Your task to perform on an android device: install app "ColorNote Notepad Notes" Image 0: 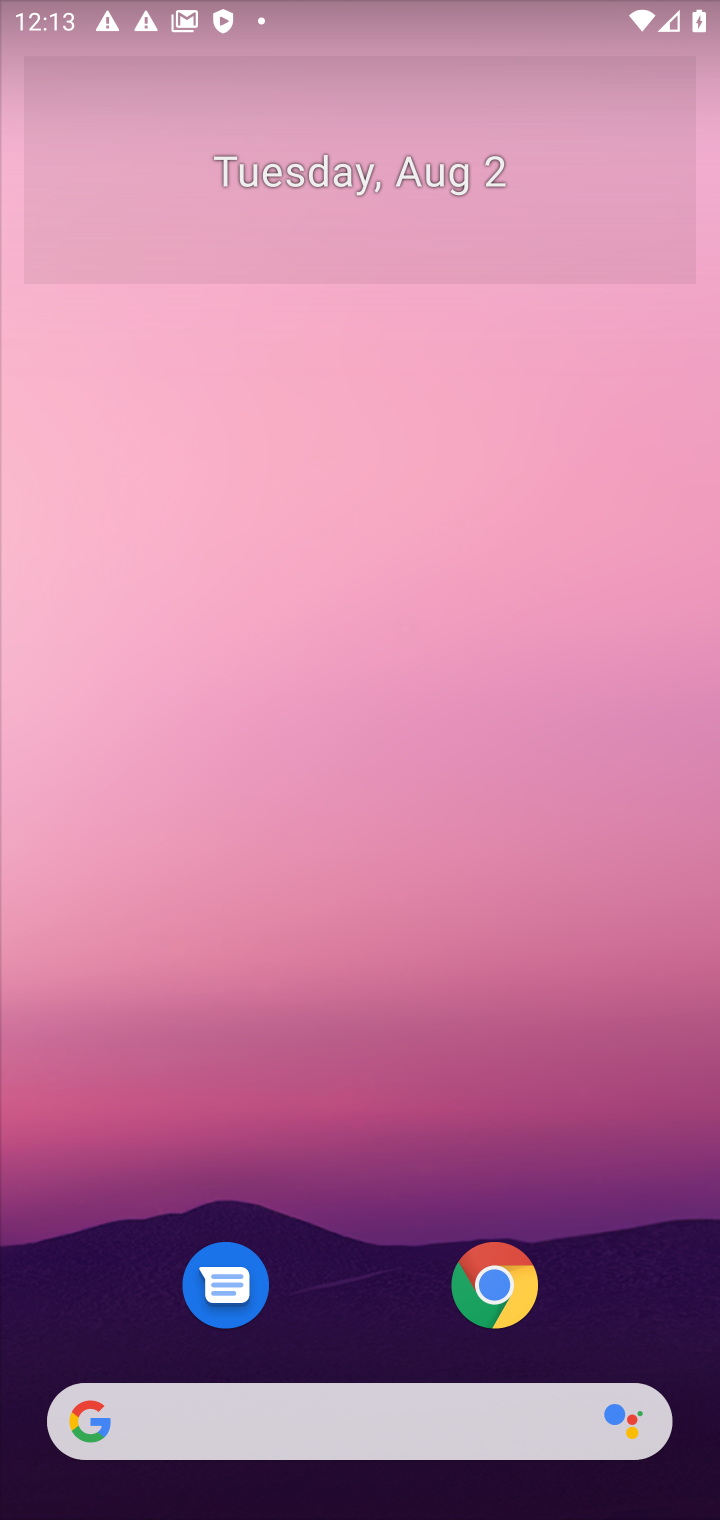
Step 0: drag from (619, 1136) to (600, 220)
Your task to perform on an android device: install app "ColorNote Notepad Notes" Image 1: 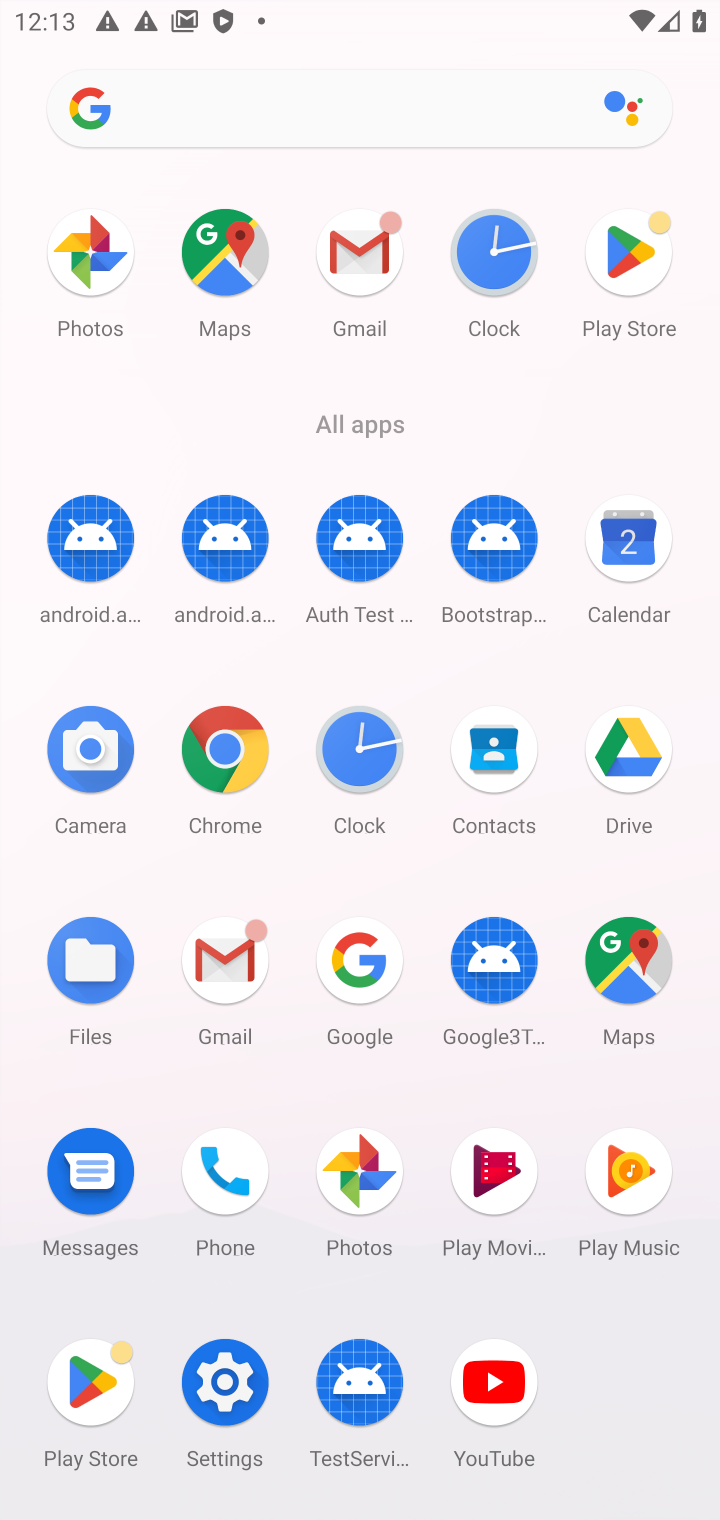
Step 1: click (101, 1389)
Your task to perform on an android device: install app "ColorNote Notepad Notes" Image 2: 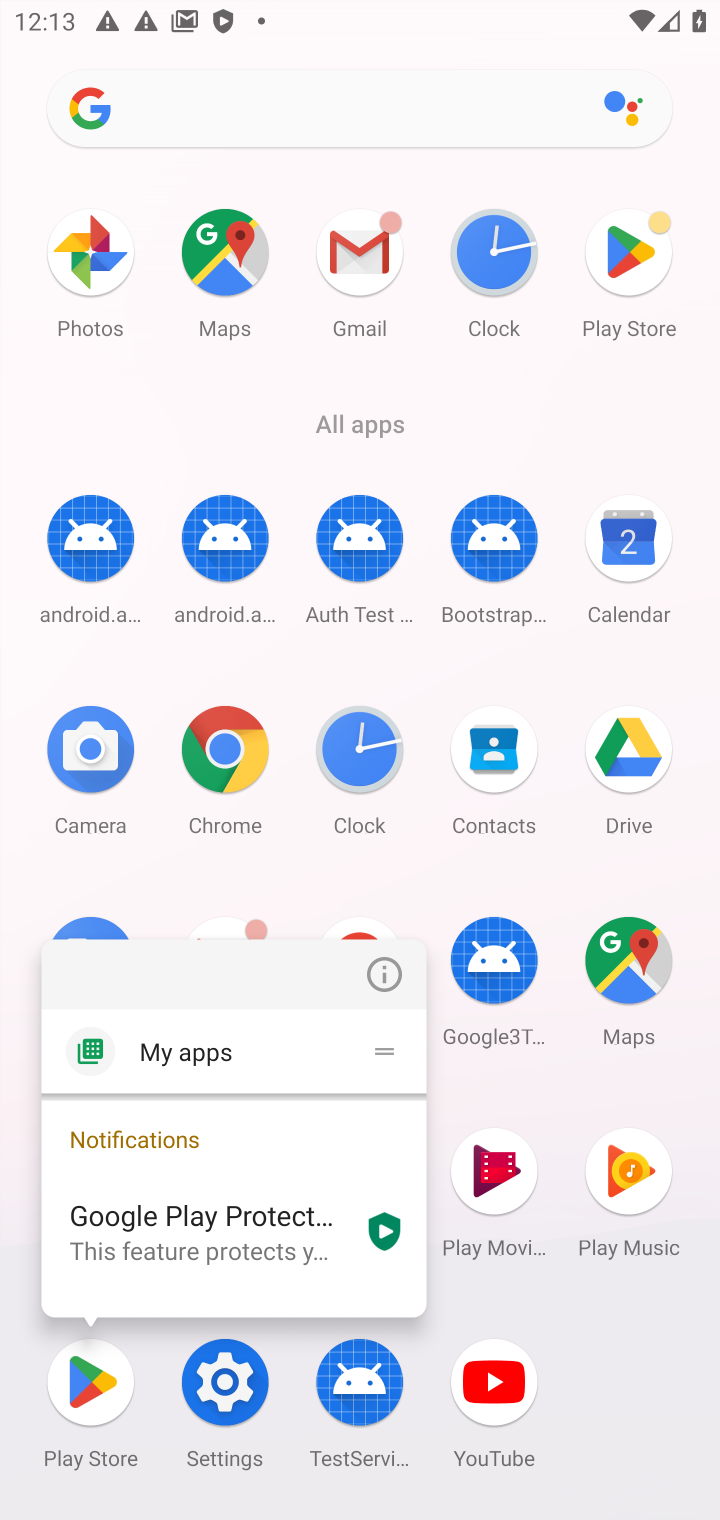
Step 2: click (101, 1389)
Your task to perform on an android device: install app "ColorNote Notepad Notes" Image 3: 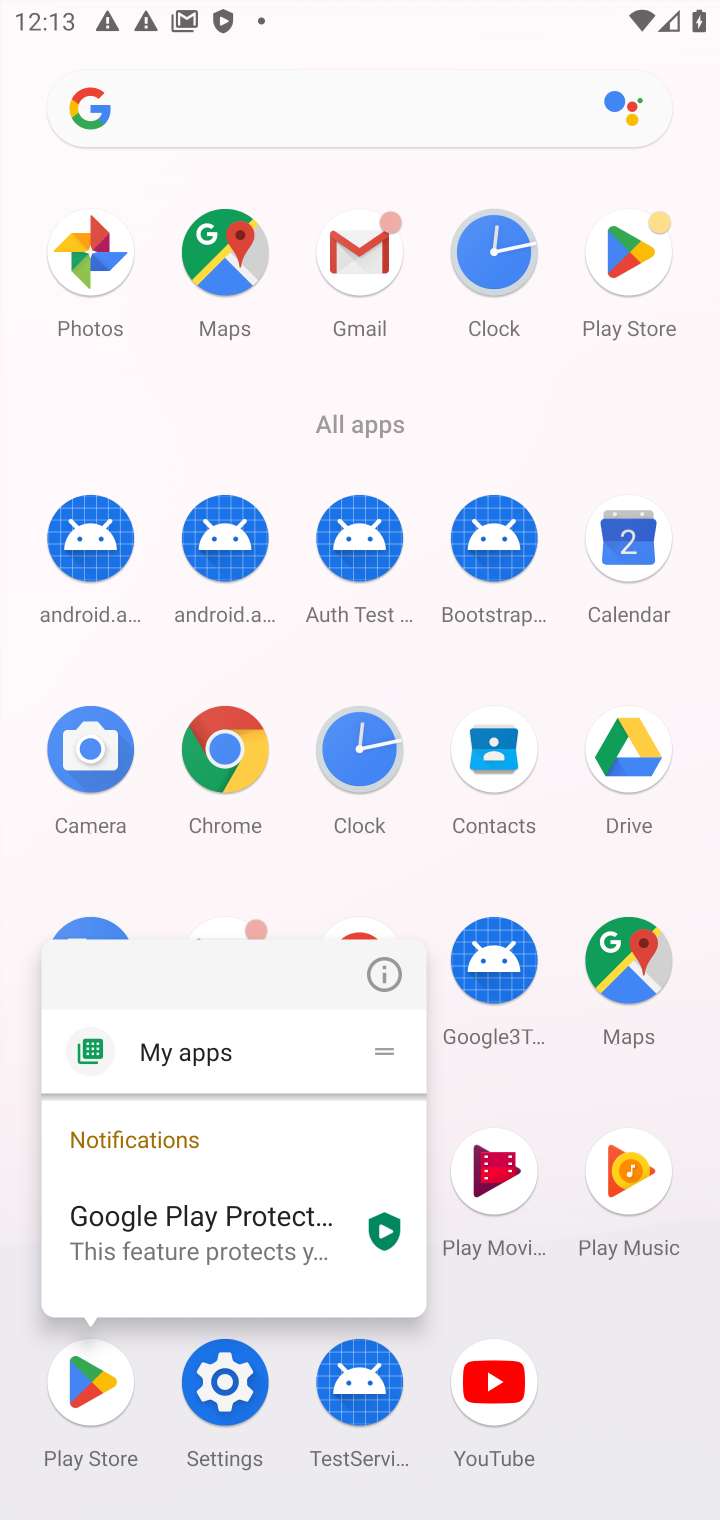
Step 3: click (88, 1396)
Your task to perform on an android device: install app "ColorNote Notepad Notes" Image 4: 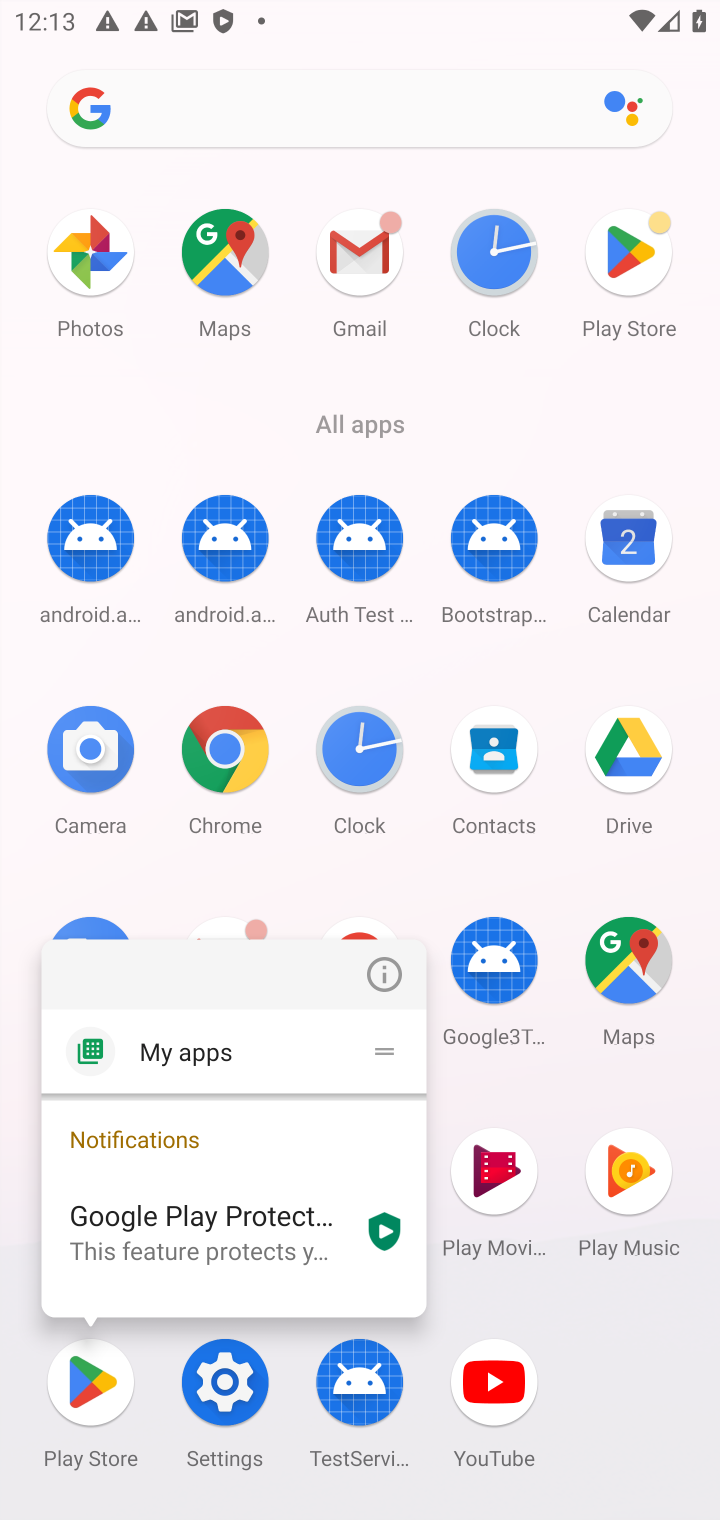
Step 4: click (661, 1336)
Your task to perform on an android device: install app "ColorNote Notepad Notes" Image 5: 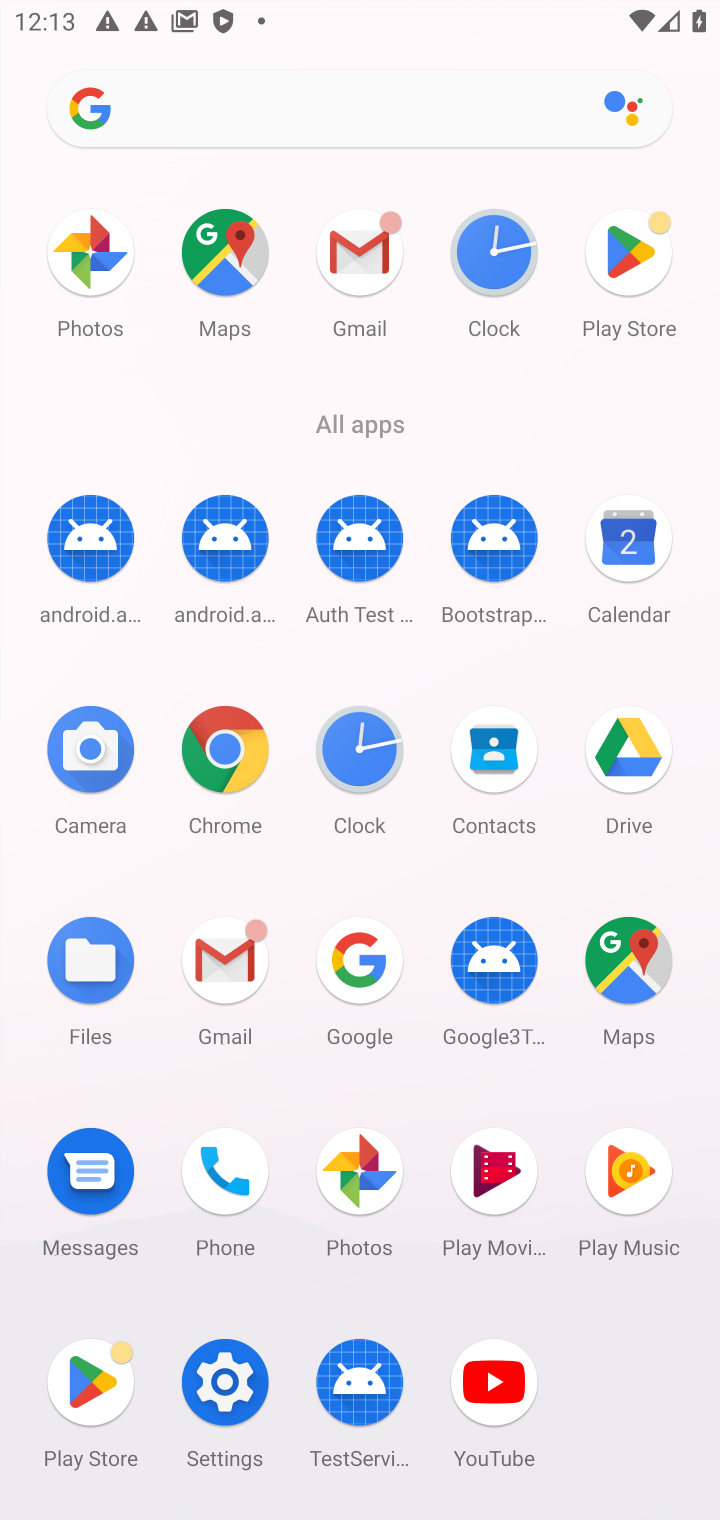
Step 5: click (646, 1359)
Your task to perform on an android device: install app "ColorNote Notepad Notes" Image 6: 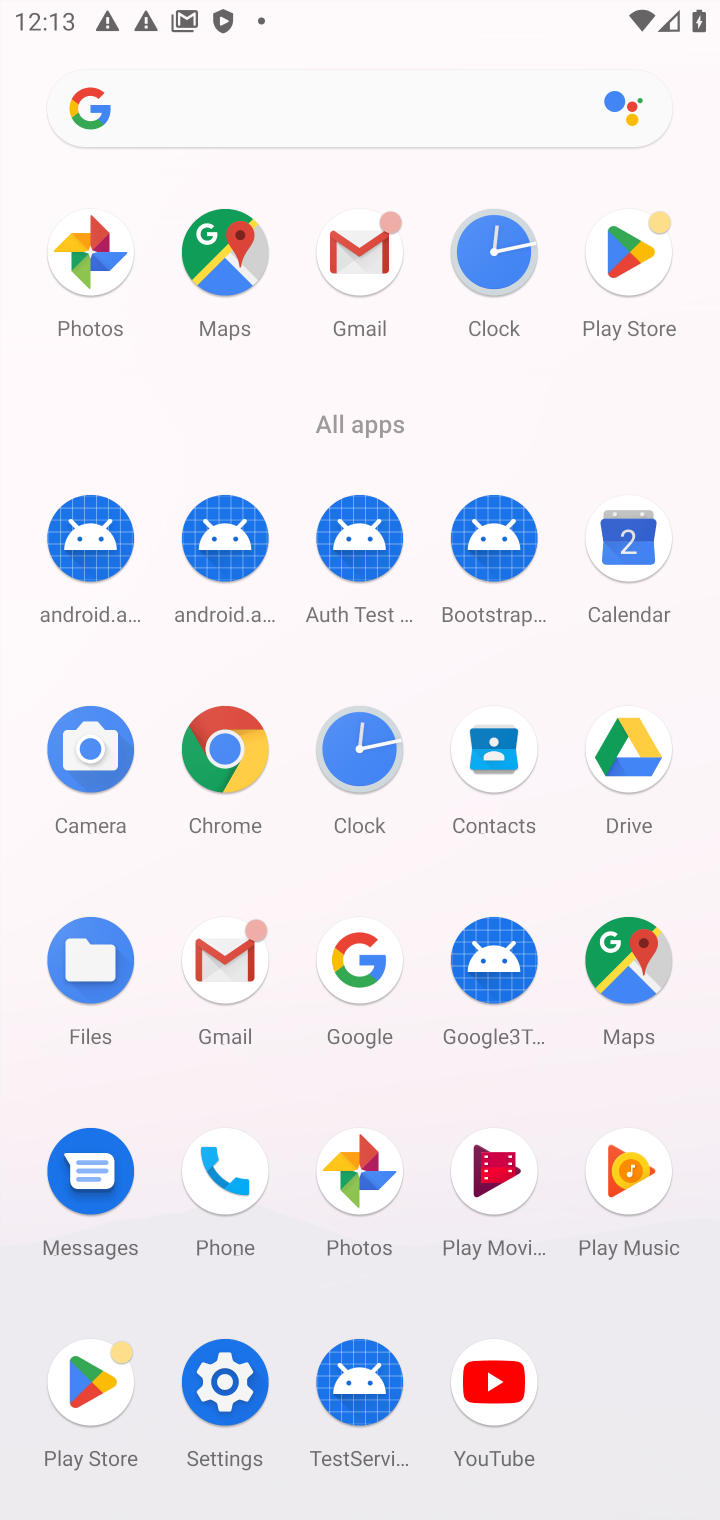
Step 6: click (93, 1388)
Your task to perform on an android device: install app "ColorNote Notepad Notes" Image 7: 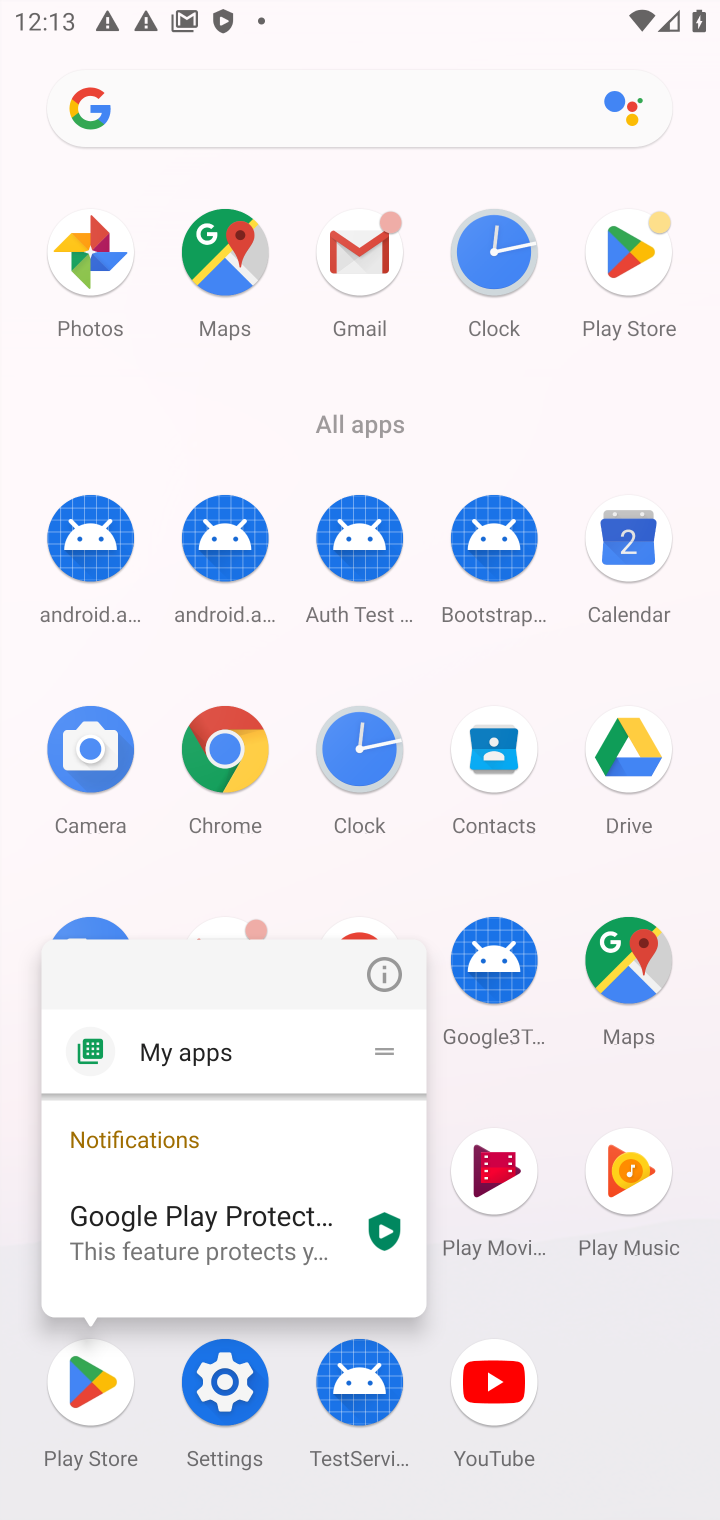
Step 7: click (93, 1386)
Your task to perform on an android device: install app "ColorNote Notepad Notes" Image 8: 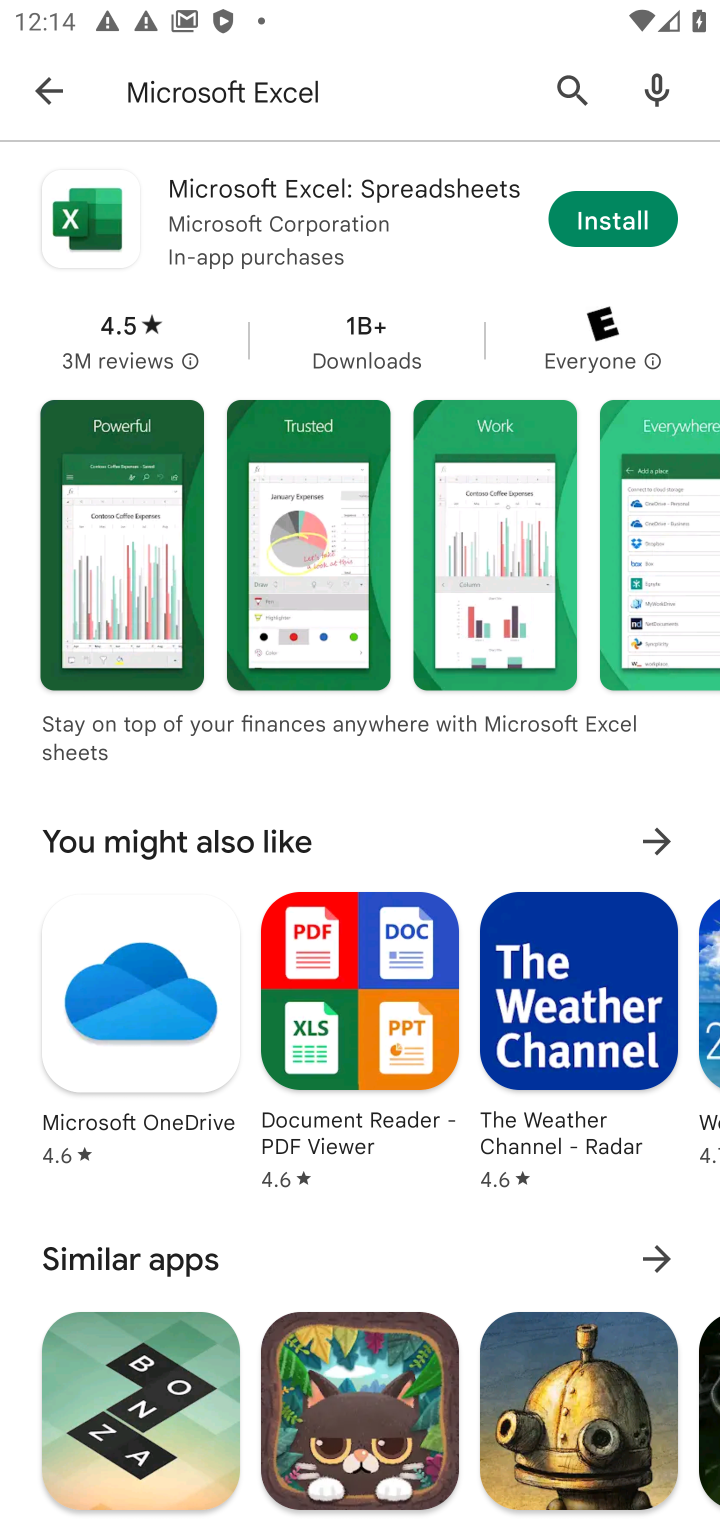
Step 8: click (403, 81)
Your task to perform on an android device: install app "ColorNote Notepad Notes" Image 9: 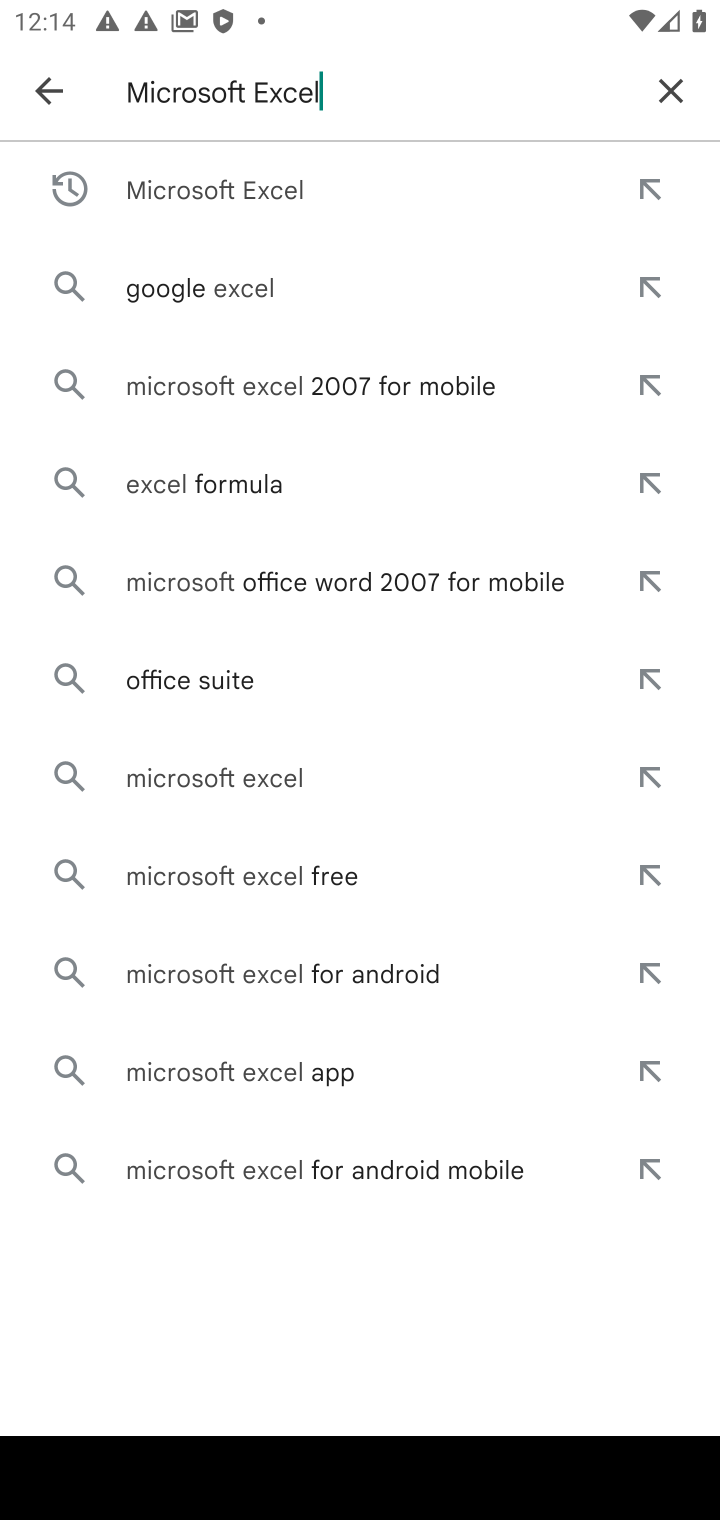
Step 9: click (663, 84)
Your task to perform on an android device: install app "ColorNote Notepad Notes" Image 10: 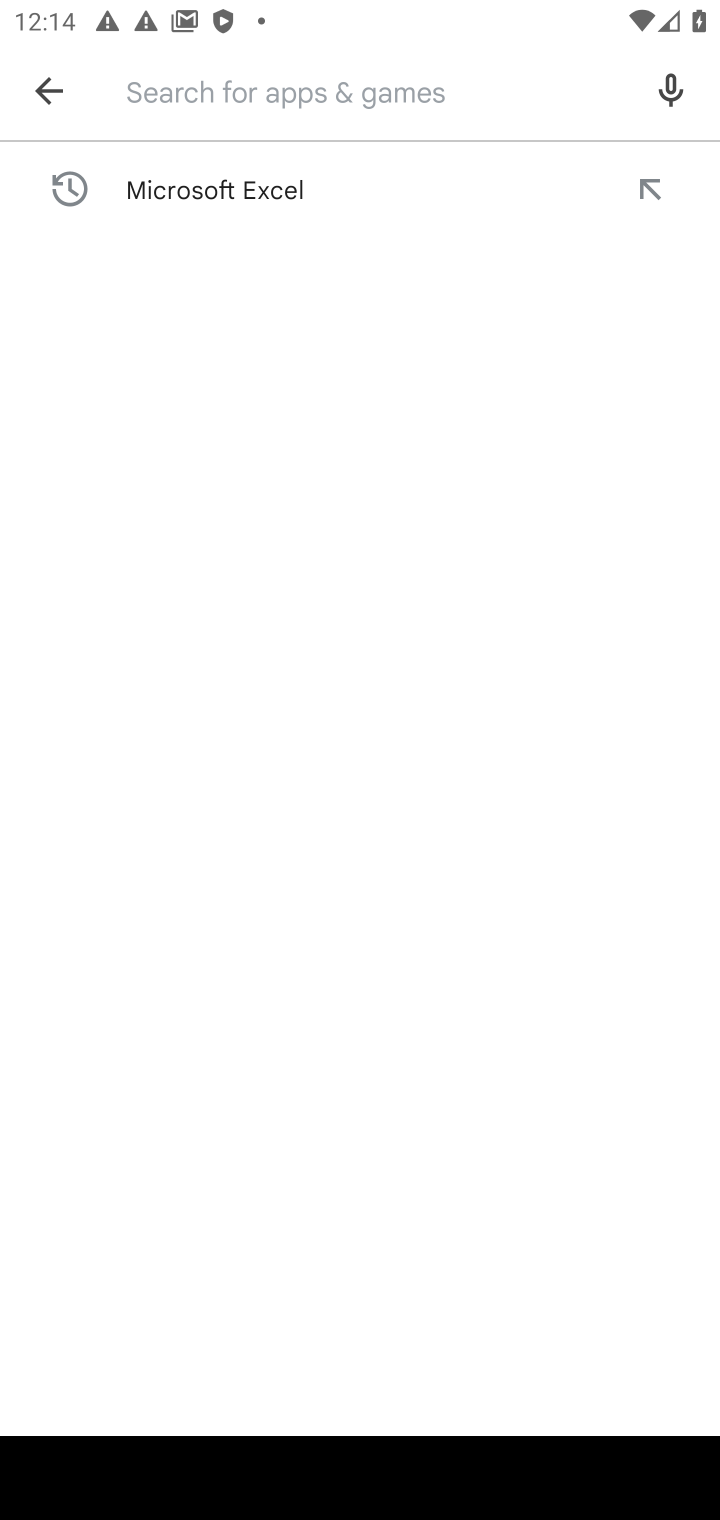
Step 10: type "ColorNote Notepad Notes"
Your task to perform on an android device: install app "ColorNote Notepad Notes" Image 11: 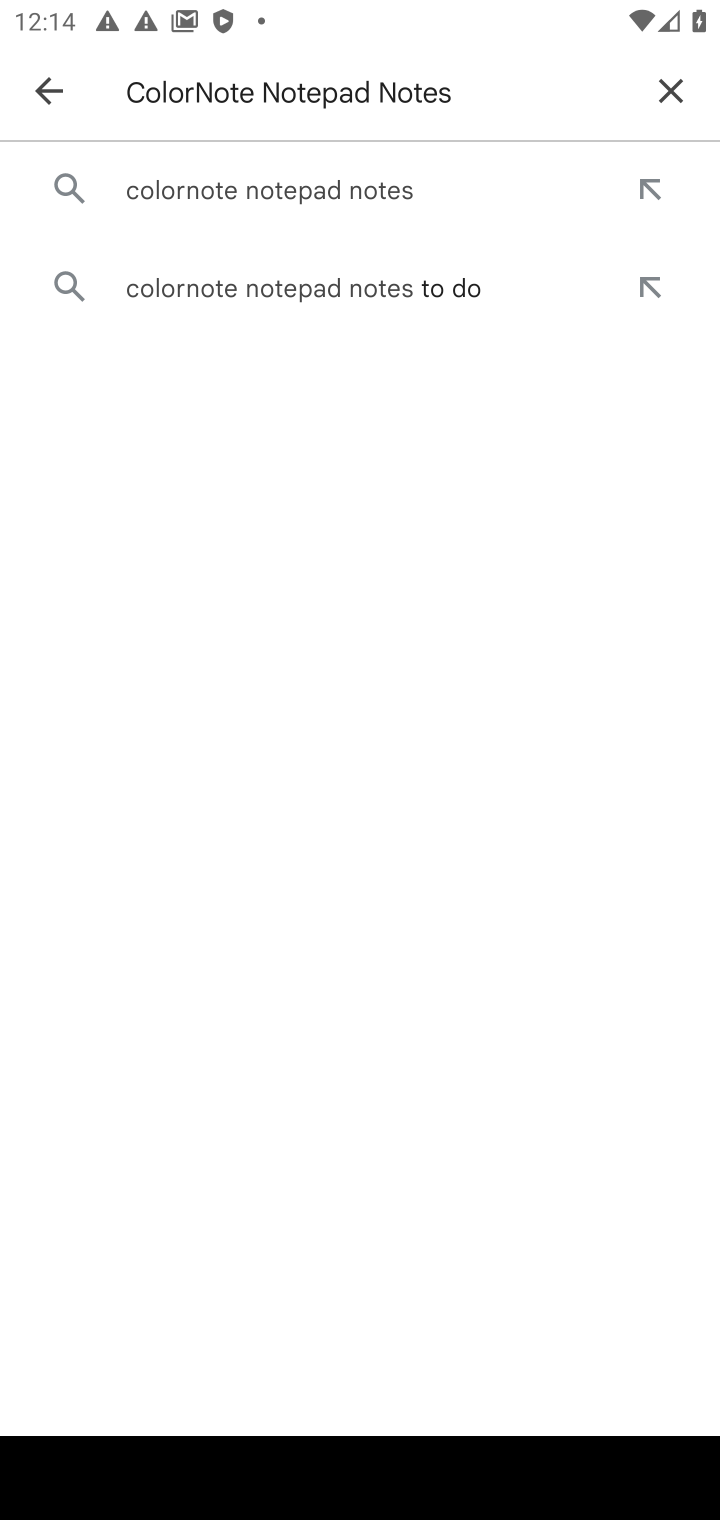
Step 11: press enter
Your task to perform on an android device: install app "ColorNote Notepad Notes" Image 12: 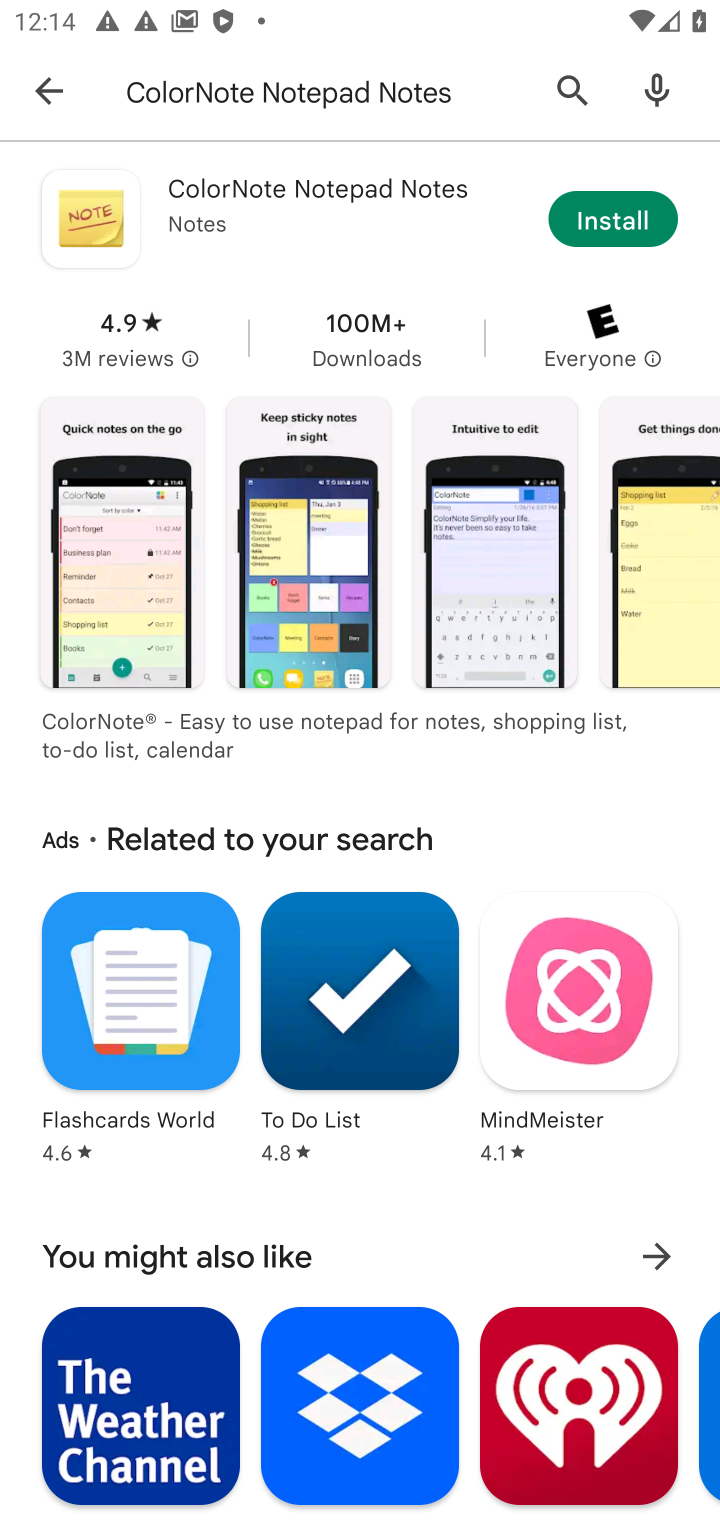
Step 12: click (588, 207)
Your task to perform on an android device: install app "ColorNote Notepad Notes" Image 13: 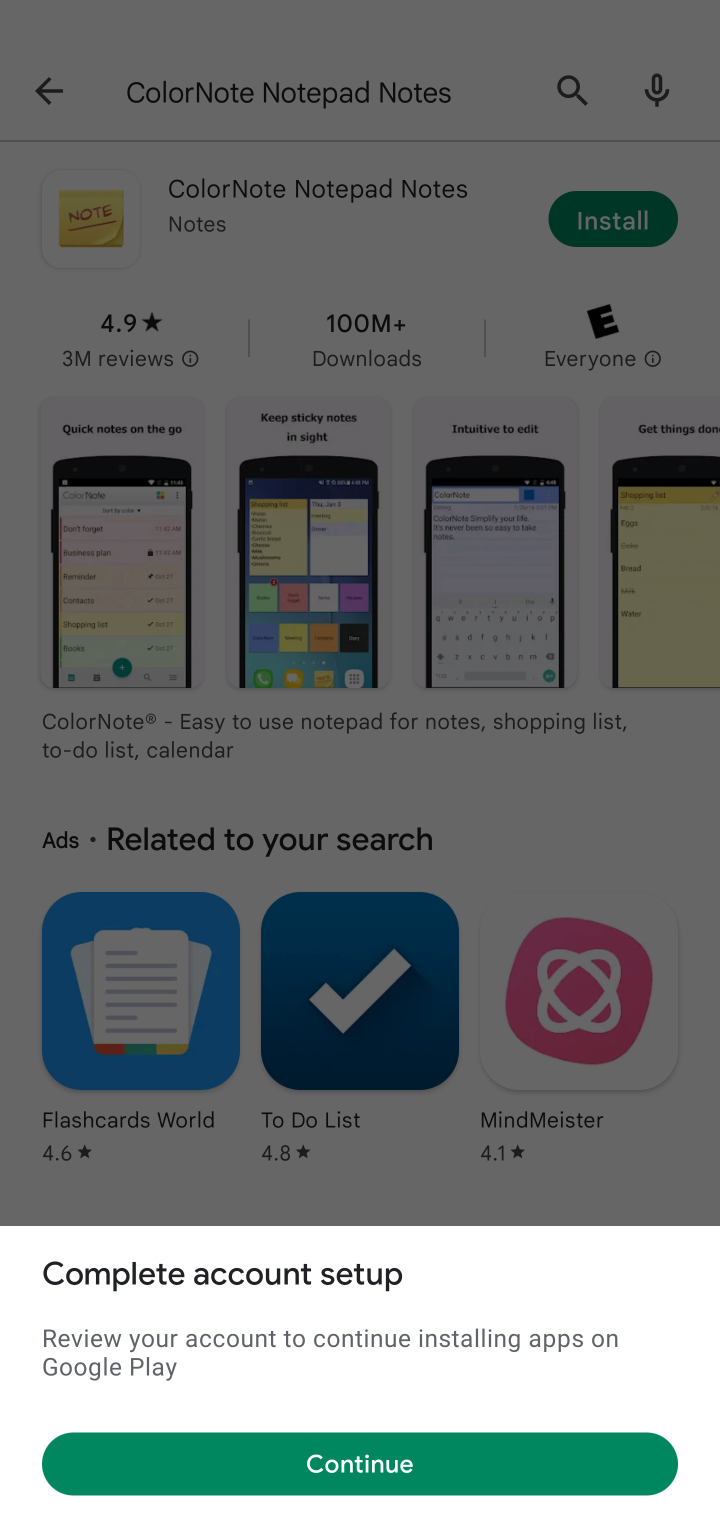
Step 13: click (447, 1456)
Your task to perform on an android device: install app "ColorNote Notepad Notes" Image 14: 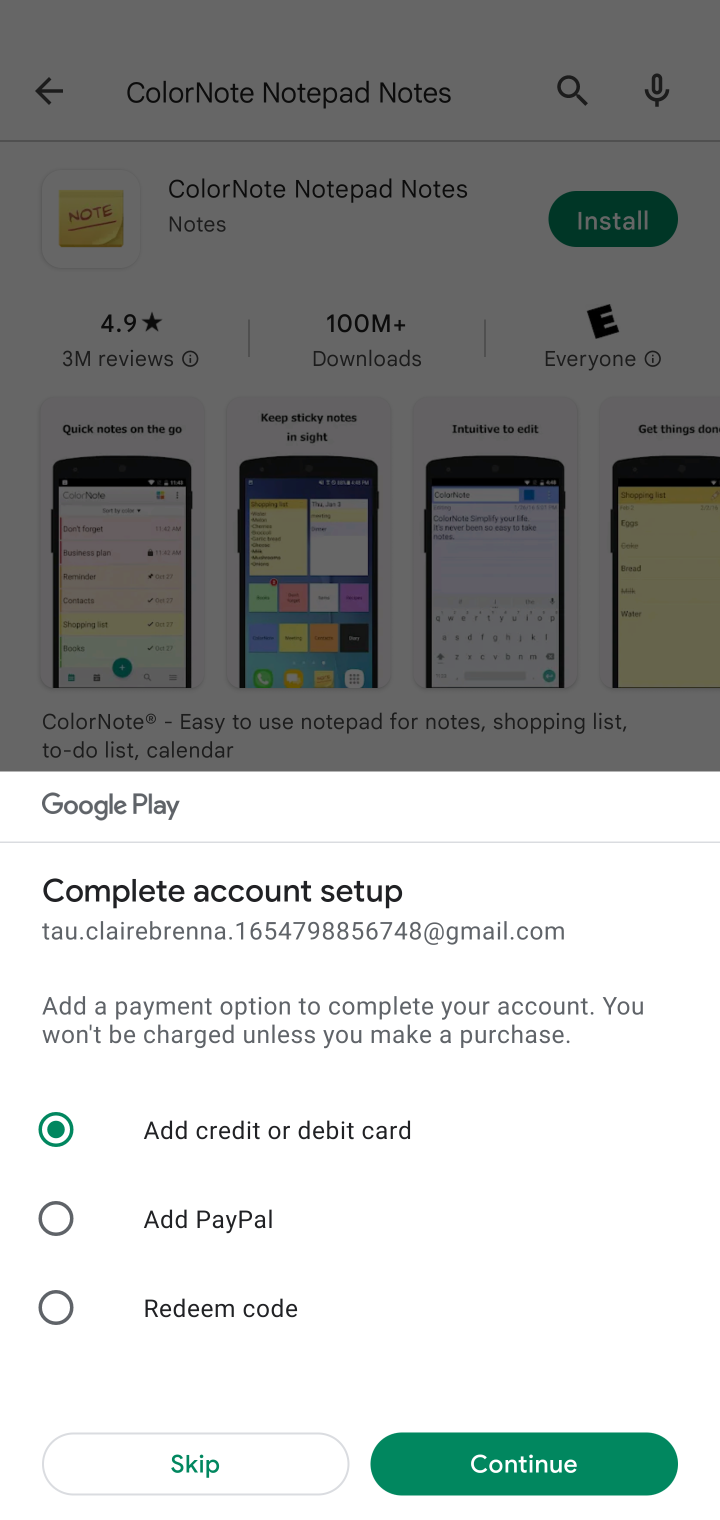
Step 14: click (223, 1465)
Your task to perform on an android device: install app "ColorNote Notepad Notes" Image 15: 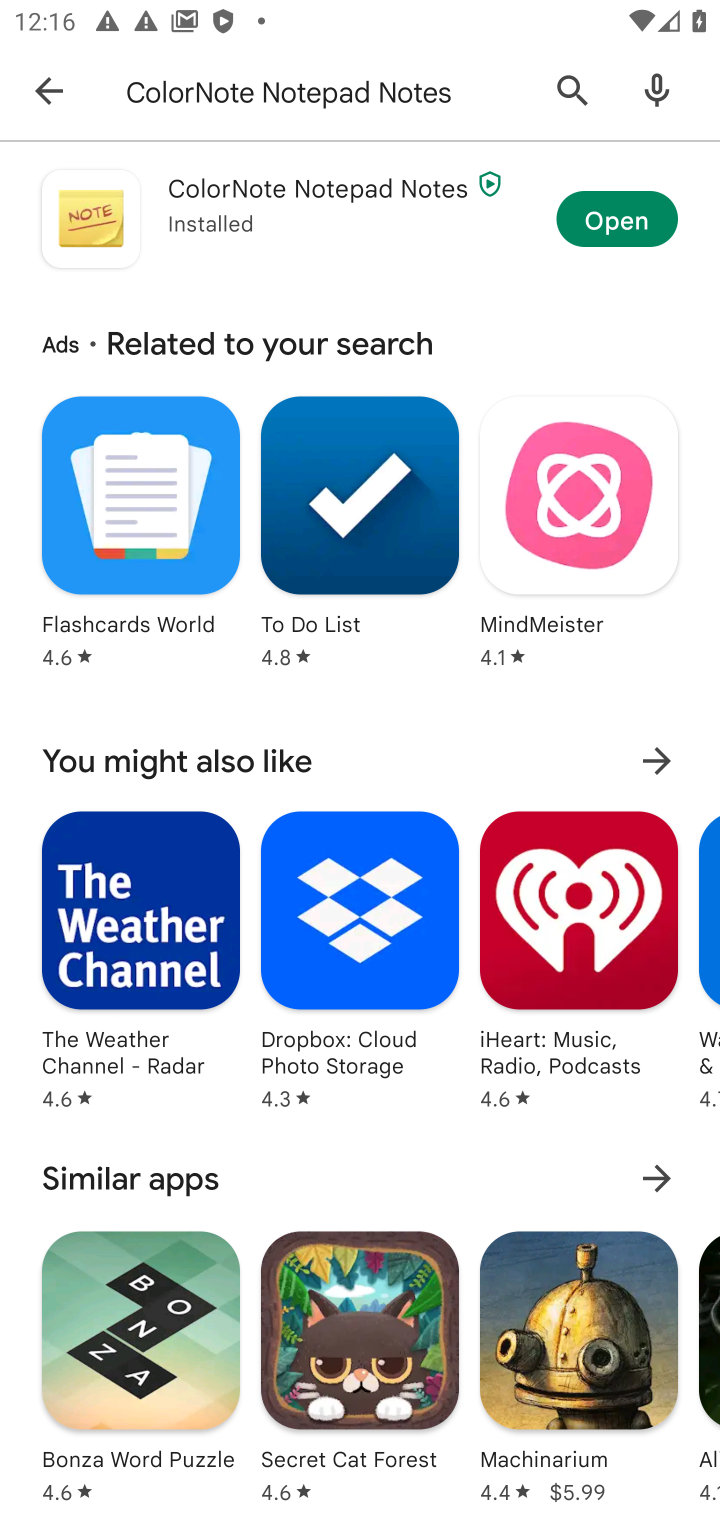
Step 15: task complete